Your task to perform on an android device: turn off javascript in the chrome app Image 0: 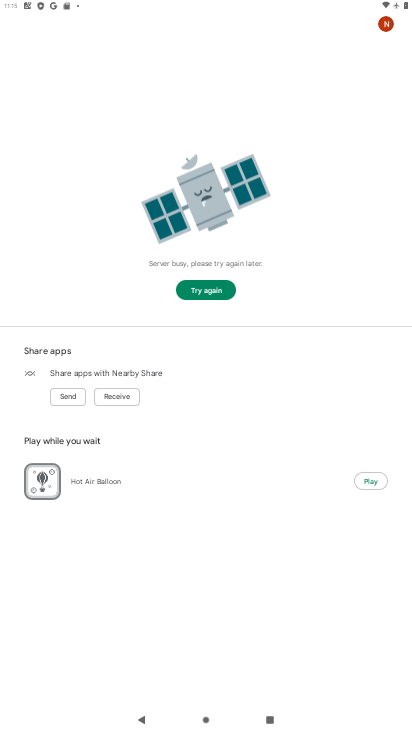
Step 0: press back button
Your task to perform on an android device: turn off javascript in the chrome app Image 1: 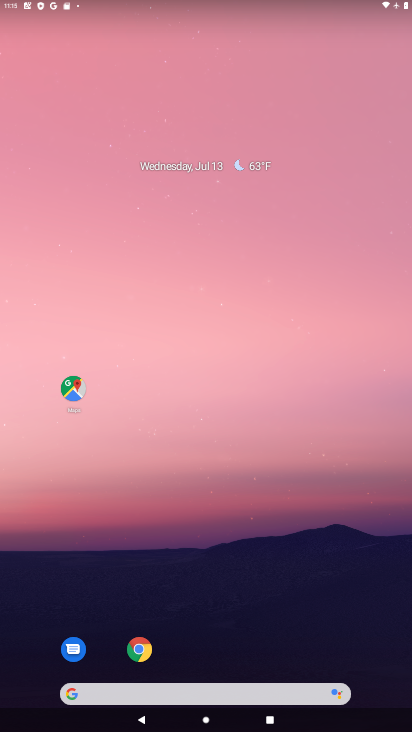
Step 1: drag from (211, 650) to (216, 278)
Your task to perform on an android device: turn off javascript in the chrome app Image 2: 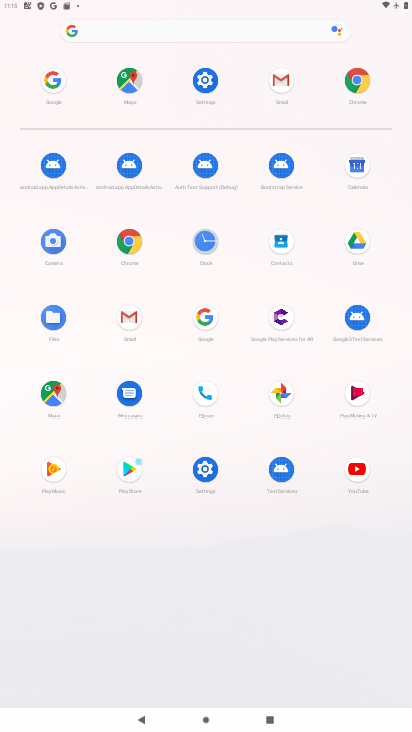
Step 2: click (346, 77)
Your task to perform on an android device: turn off javascript in the chrome app Image 3: 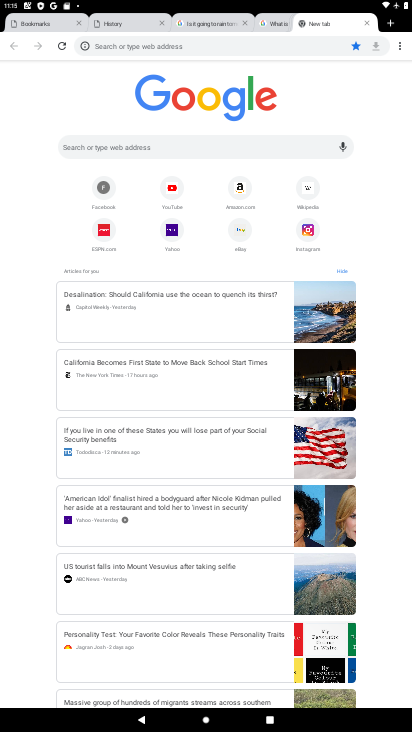
Step 3: click (405, 43)
Your task to perform on an android device: turn off javascript in the chrome app Image 4: 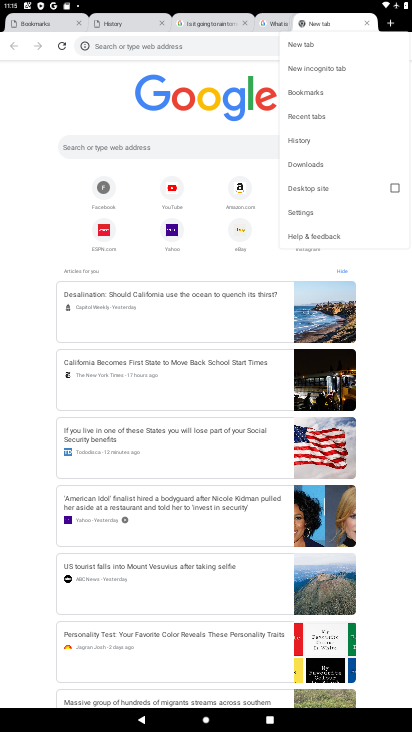
Step 4: click (329, 205)
Your task to perform on an android device: turn off javascript in the chrome app Image 5: 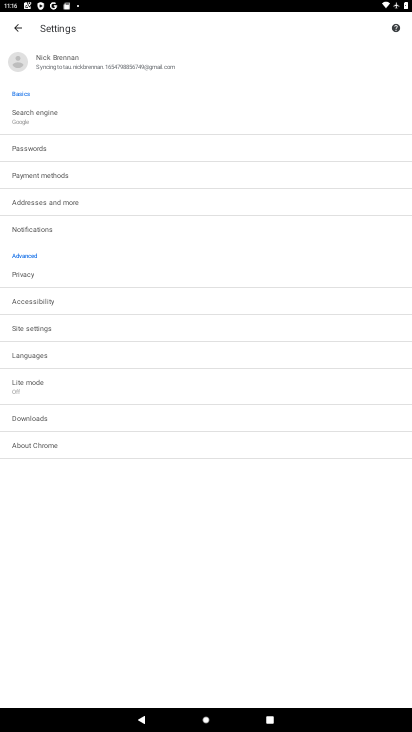
Step 5: click (40, 327)
Your task to perform on an android device: turn off javascript in the chrome app Image 6: 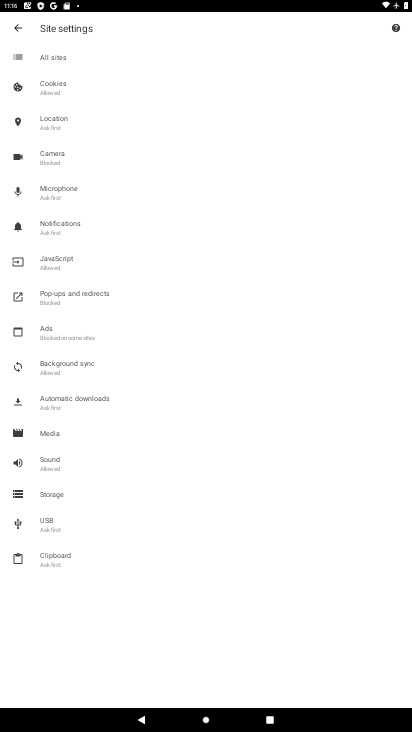
Step 6: click (74, 247)
Your task to perform on an android device: turn off javascript in the chrome app Image 7: 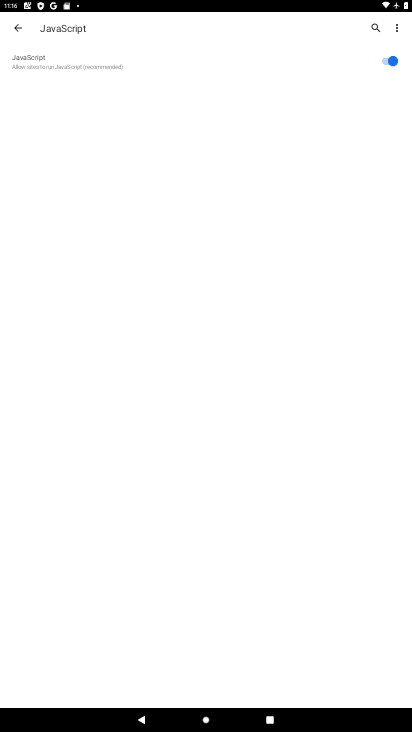
Step 7: click (386, 52)
Your task to perform on an android device: turn off javascript in the chrome app Image 8: 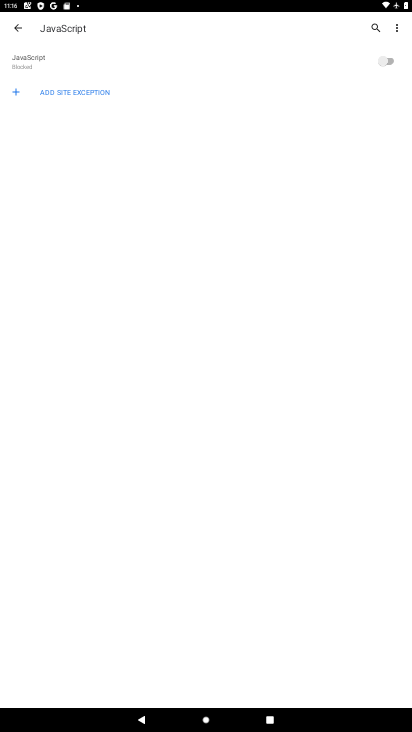
Step 8: task complete